Your task to perform on an android device: Search for razer nari on walmart.com, select the first entry, and add it to the cart. Image 0: 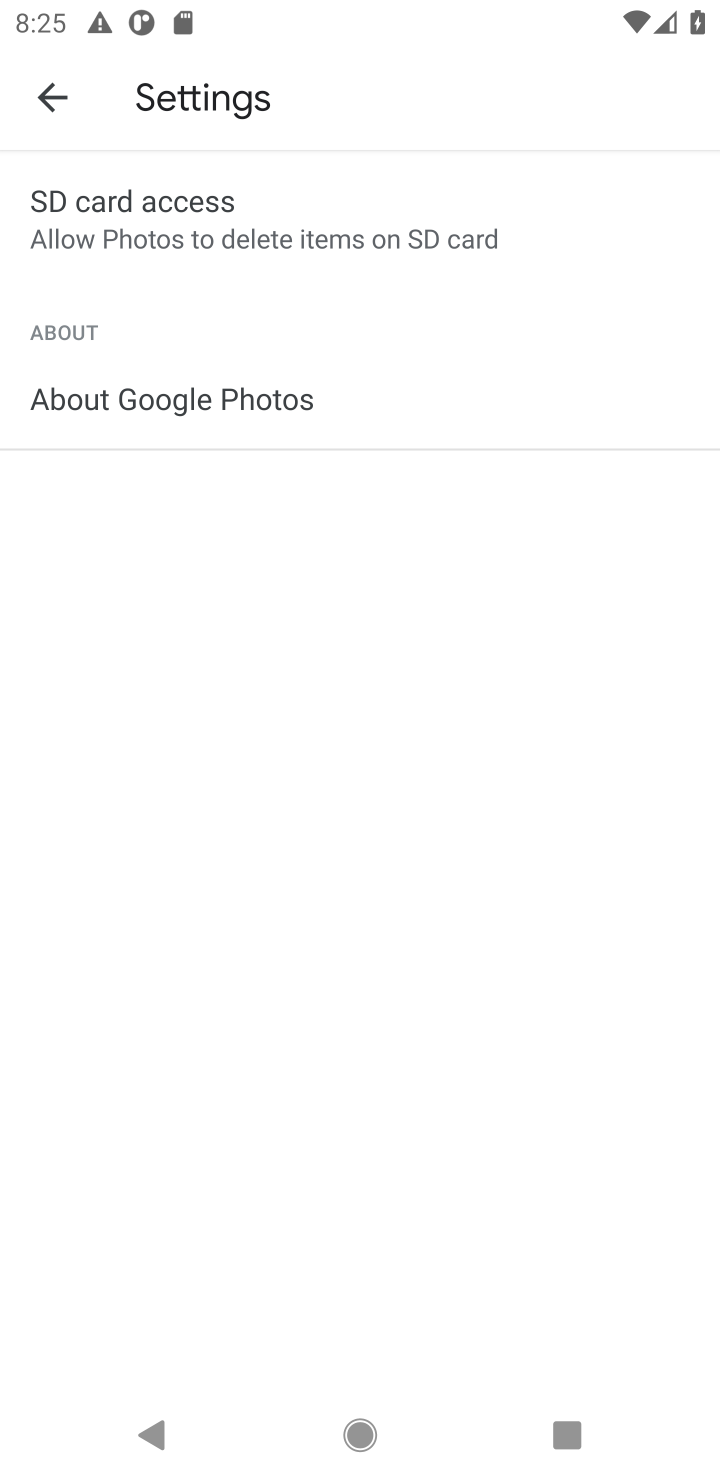
Step 0: press home button
Your task to perform on an android device: Search for razer nari on walmart.com, select the first entry, and add it to the cart. Image 1: 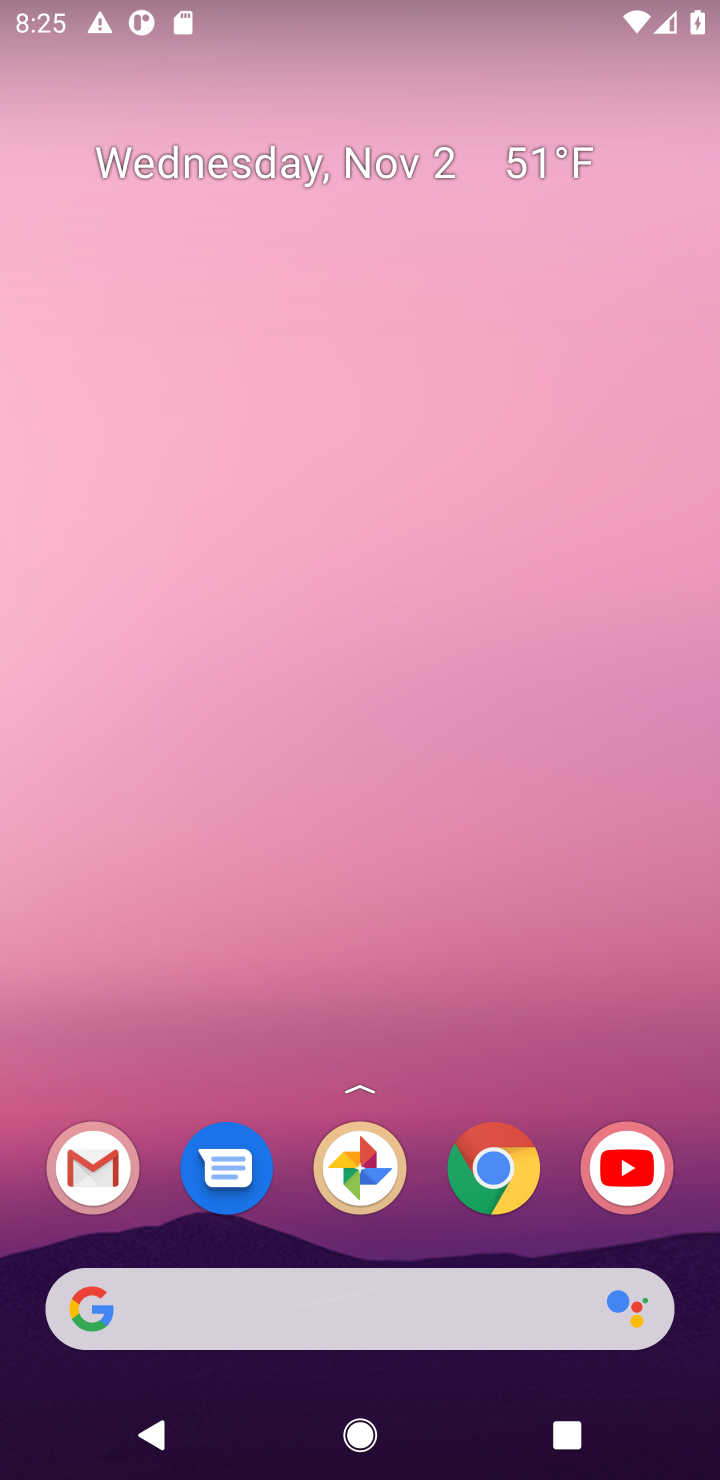
Step 1: click (279, 1314)
Your task to perform on an android device: Search for razer nari on walmart.com, select the first entry, and add it to the cart. Image 2: 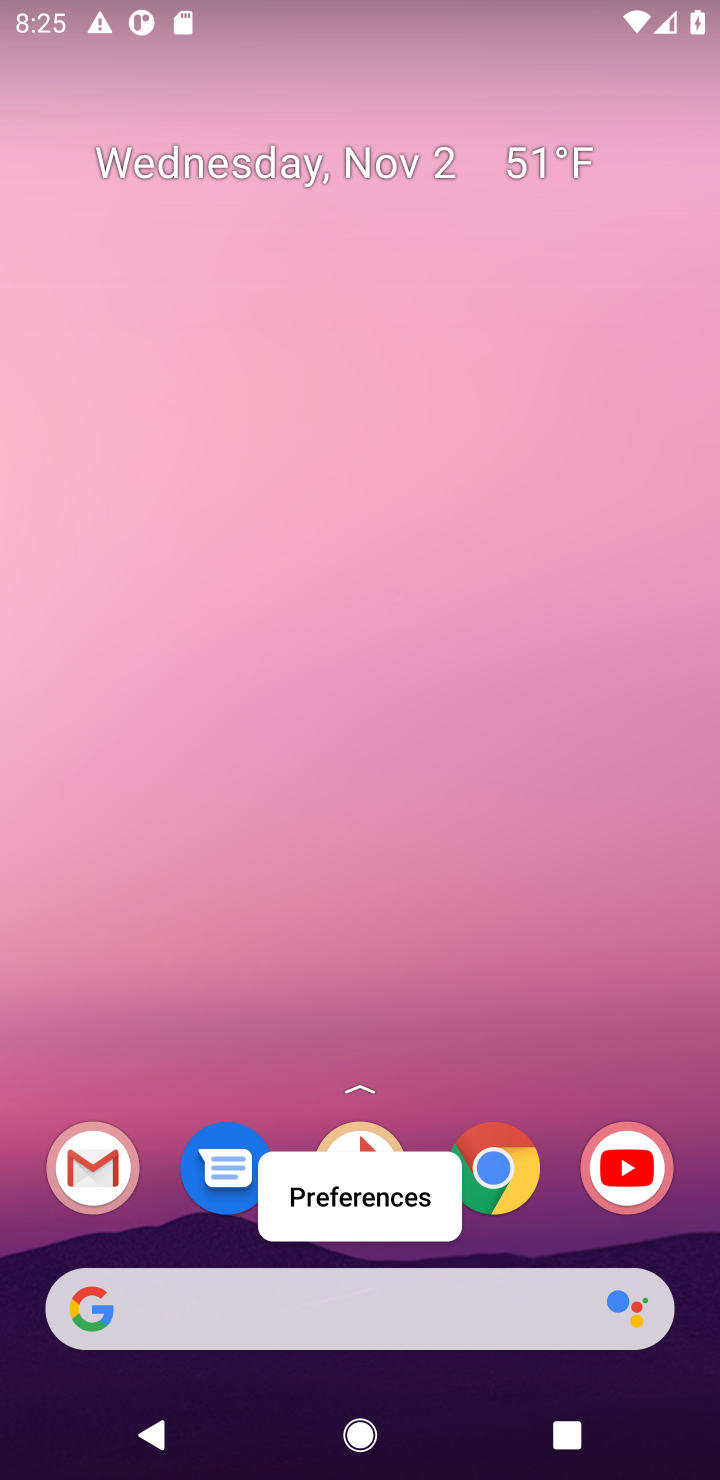
Step 2: click (342, 1304)
Your task to perform on an android device: Search for razer nari on walmart.com, select the first entry, and add it to the cart. Image 3: 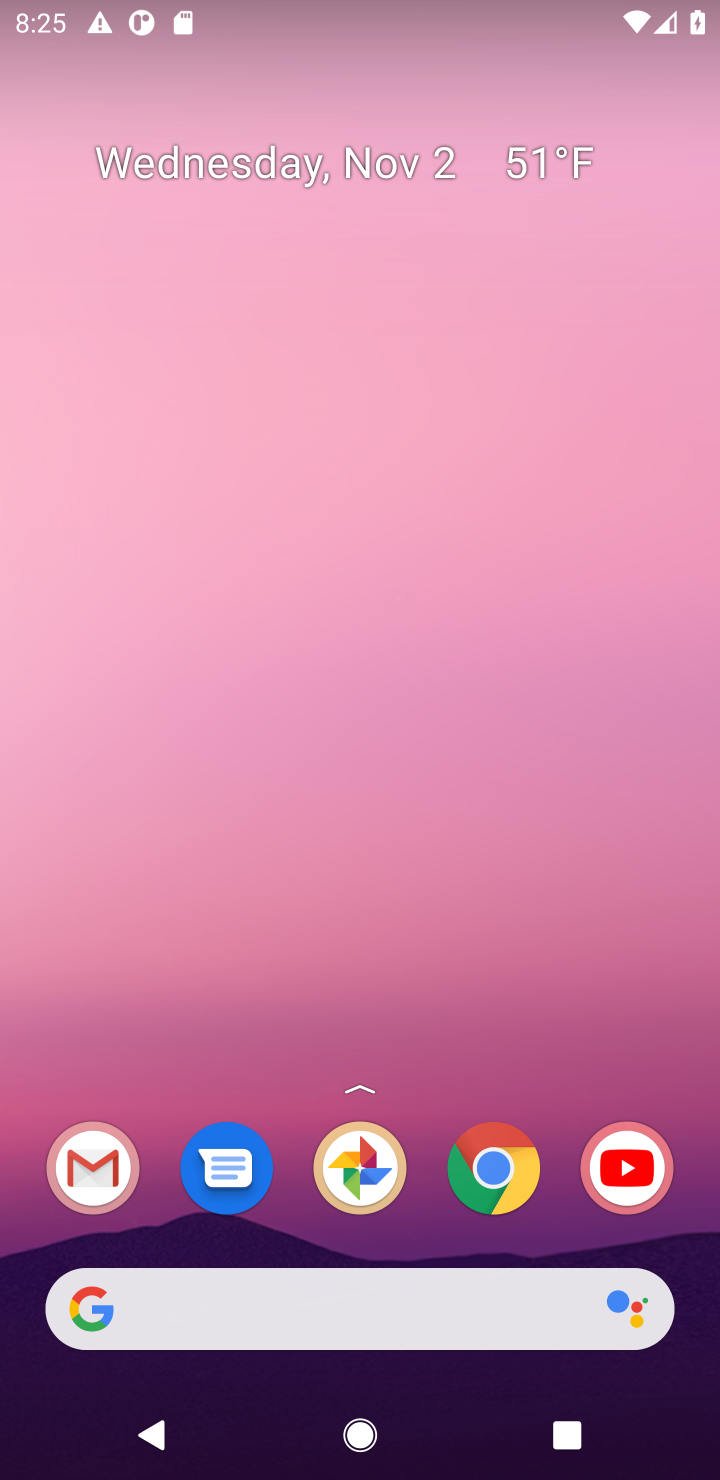
Step 3: click (513, 1184)
Your task to perform on an android device: Search for razer nari on walmart.com, select the first entry, and add it to the cart. Image 4: 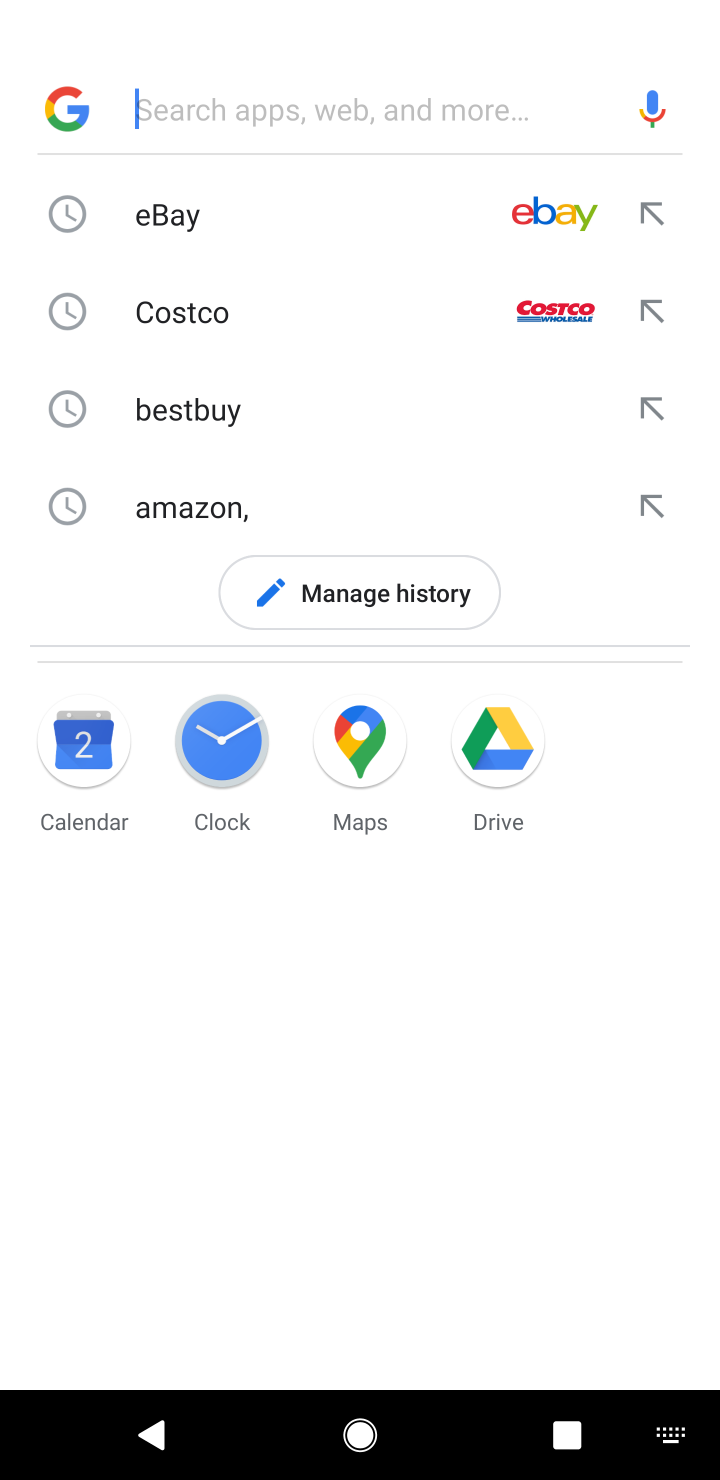
Step 4: type " walmart.com"
Your task to perform on an android device: Search for razer nari on walmart.com, select the first entry, and add it to the cart. Image 5: 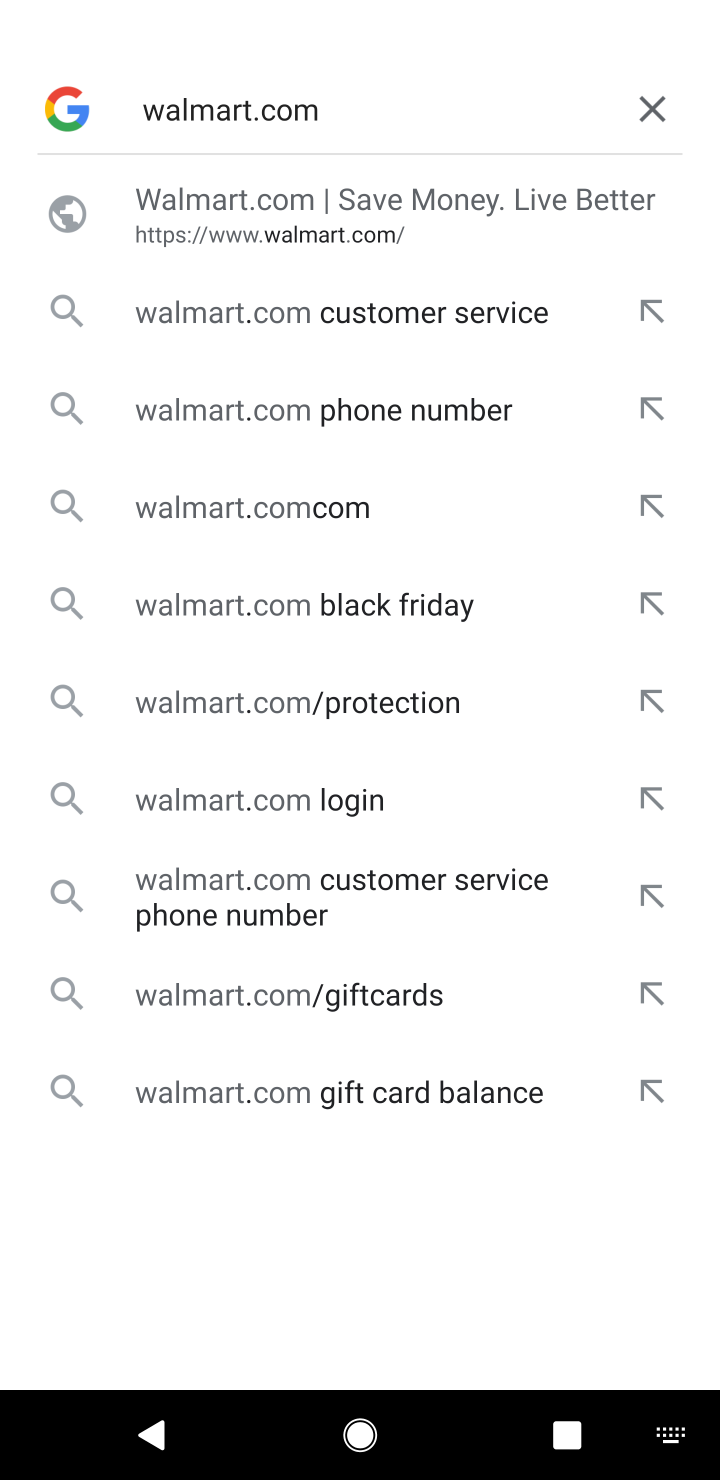
Step 5: type ""
Your task to perform on an android device: Search for razer nari on walmart.com, select the first entry, and add it to the cart. Image 6: 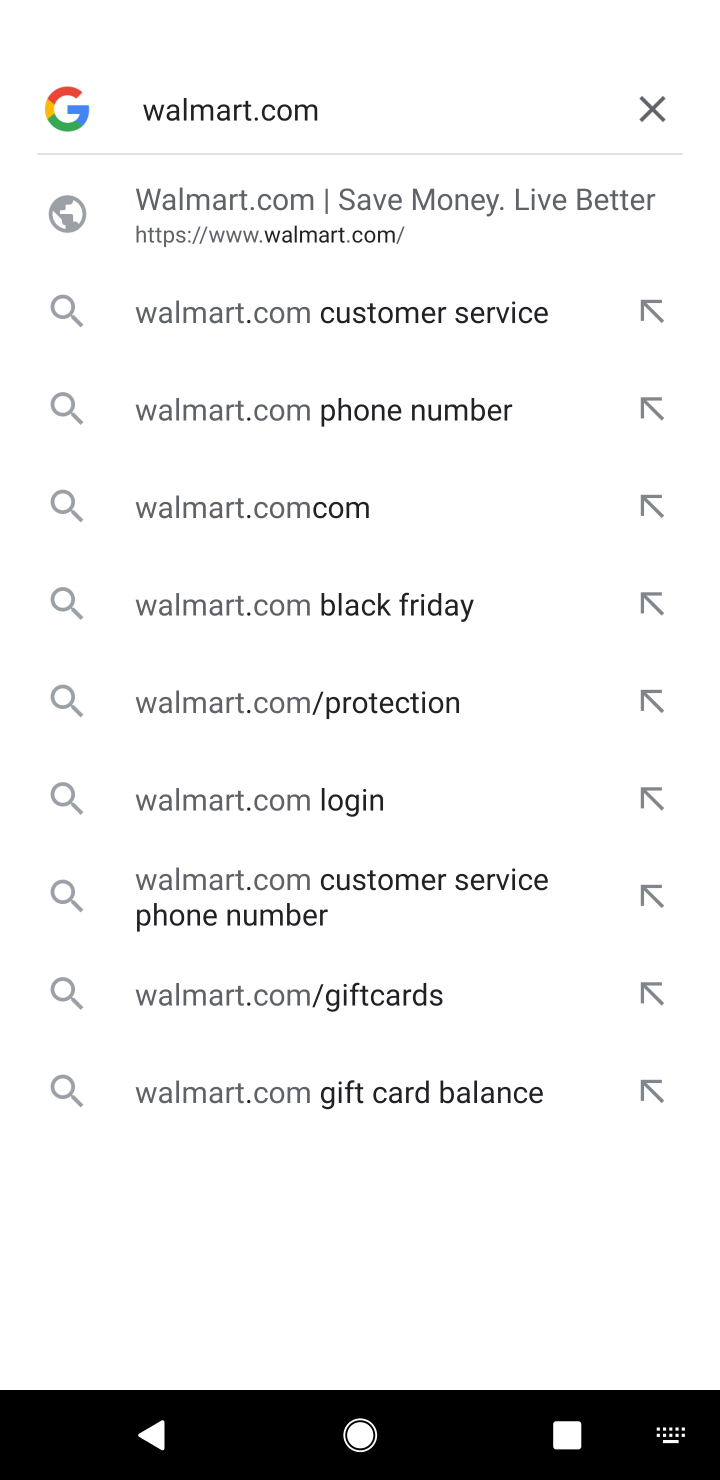
Step 6: press enter
Your task to perform on an android device: Search for razer nari on walmart.com, select the first entry, and add it to the cart. Image 7: 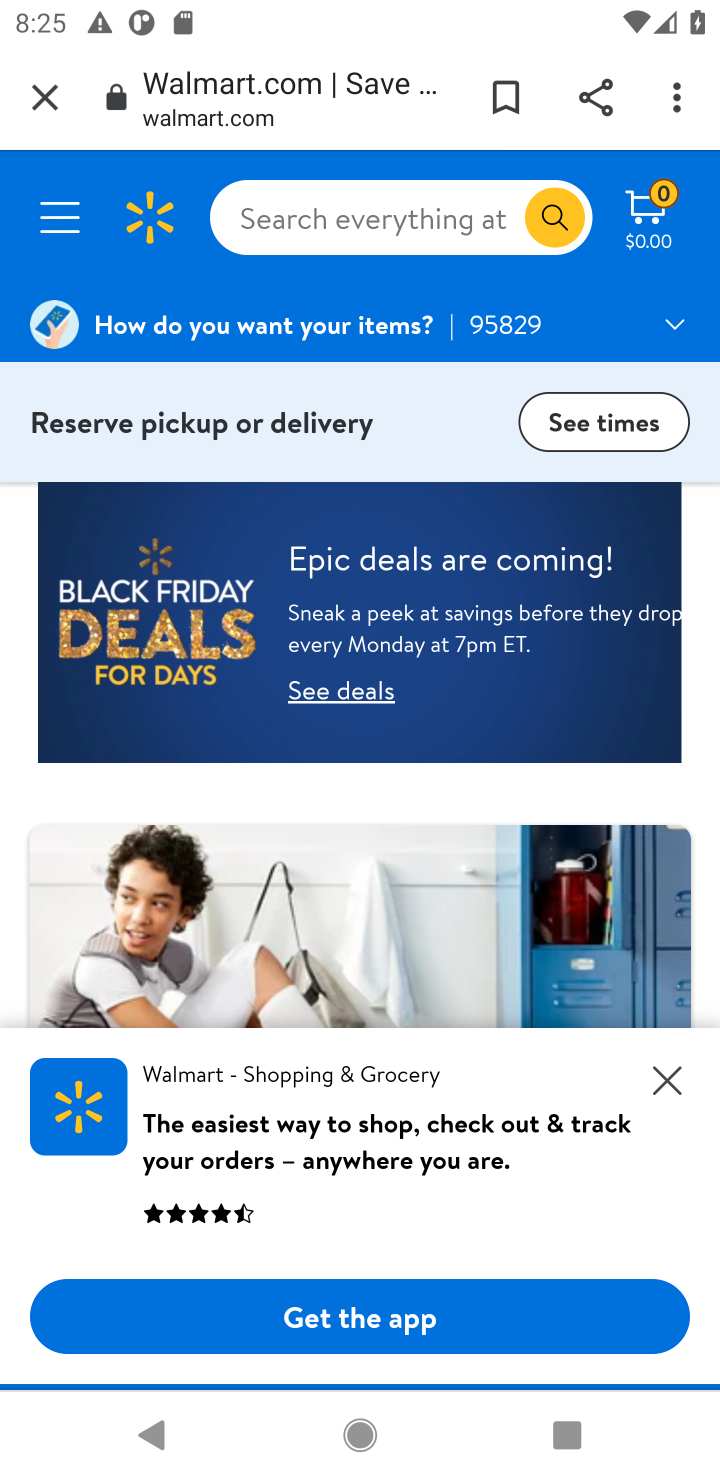
Step 7: click (672, 1078)
Your task to perform on an android device: Search for razer nari on walmart.com, select the first entry, and add it to the cart. Image 8: 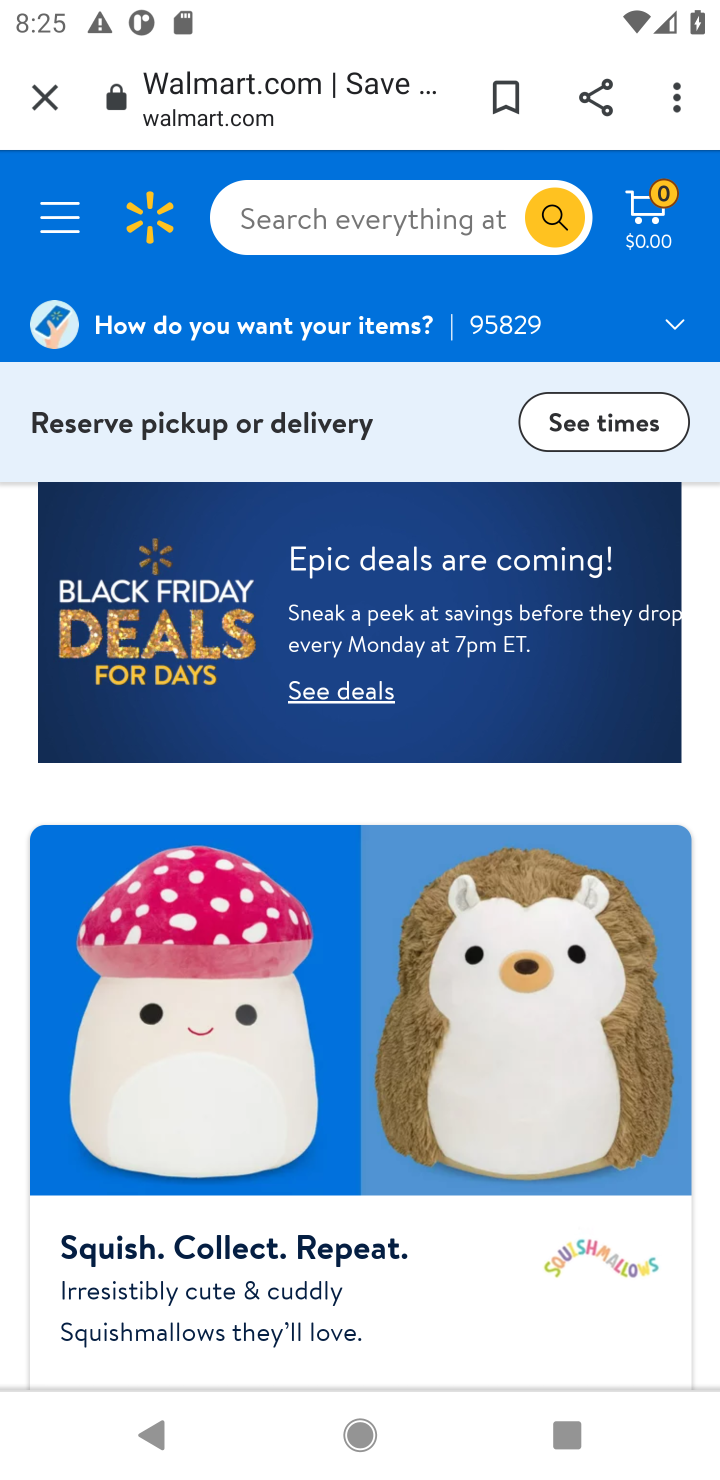
Step 8: click (329, 207)
Your task to perform on an android device: Search for razer nari on walmart.com, select the first entry, and add it to the cart. Image 9: 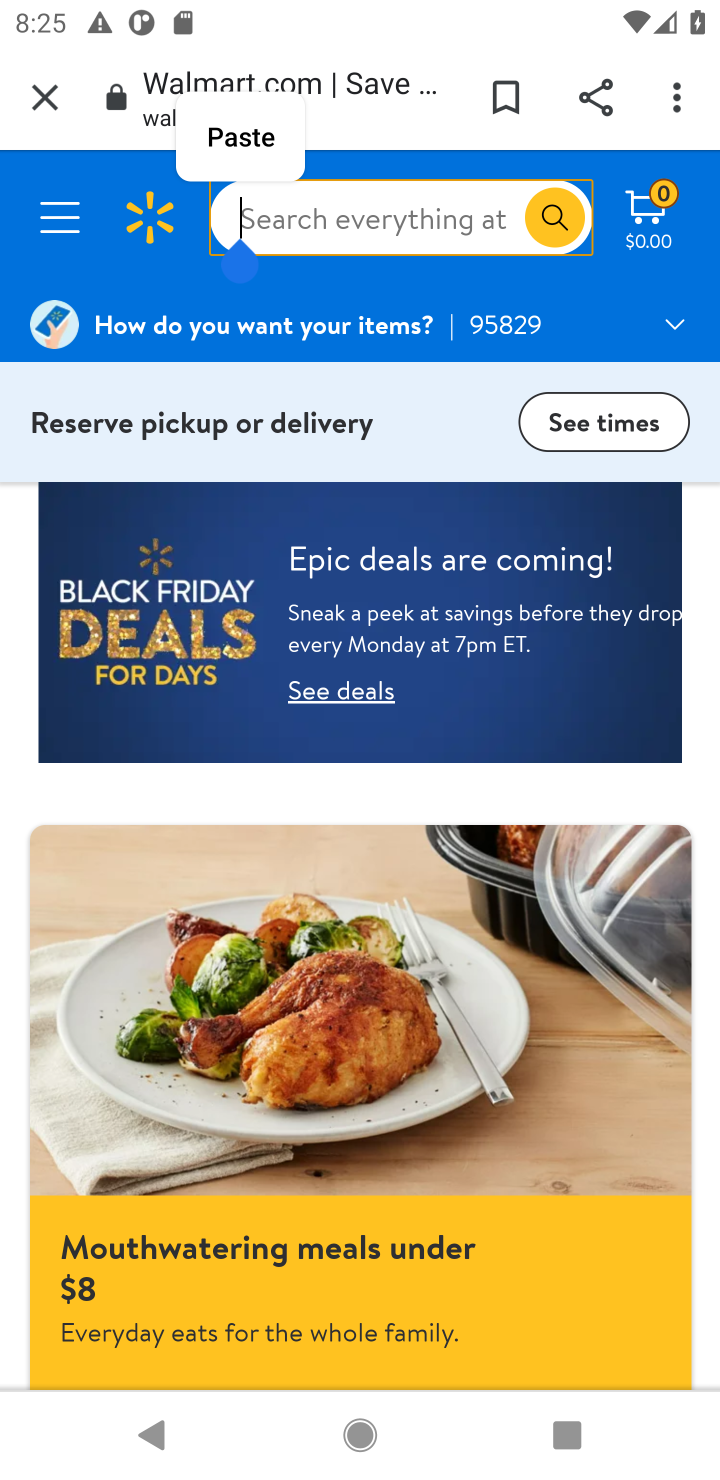
Step 9: type "razer nari "
Your task to perform on an android device: Search for razer nari on walmart.com, select the first entry, and add it to the cart. Image 10: 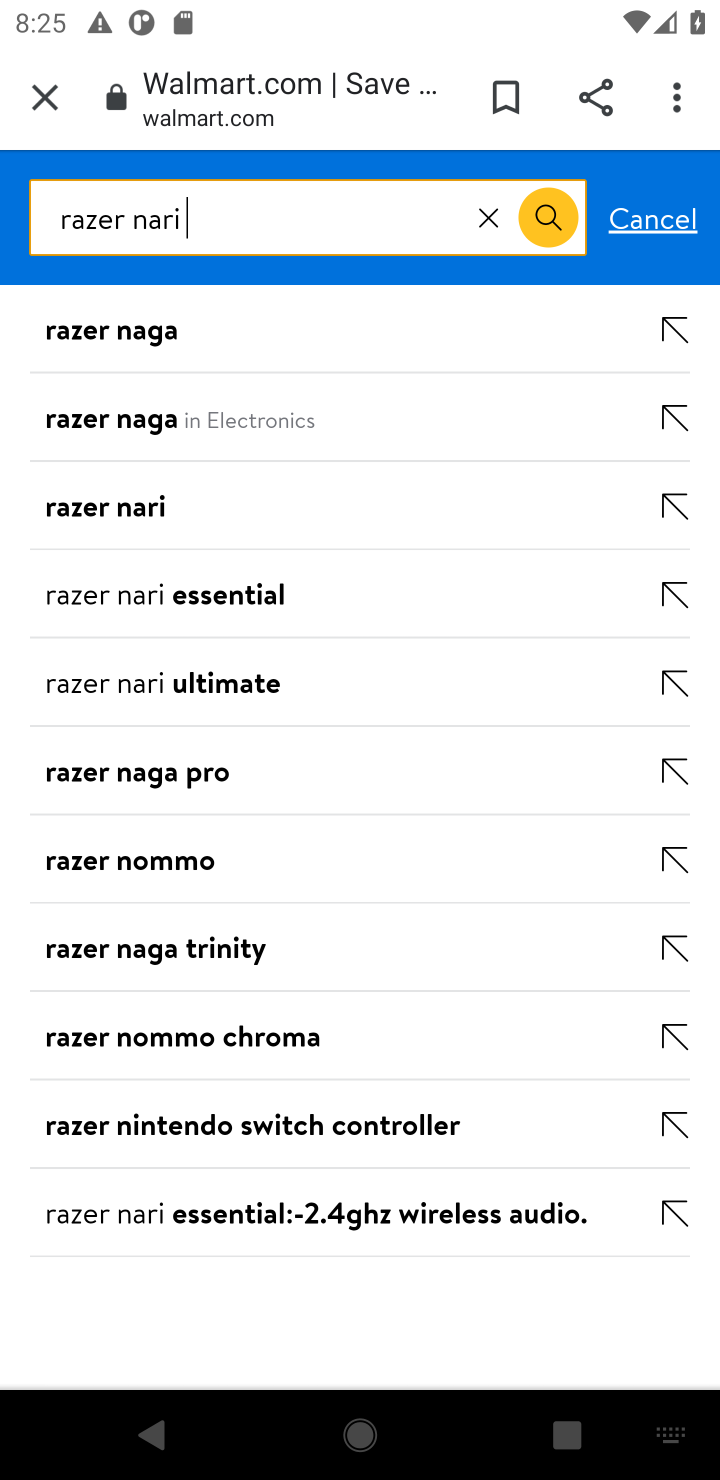
Step 10: type ""
Your task to perform on an android device: Search for razer nari on walmart.com, select the first entry, and add it to the cart. Image 11: 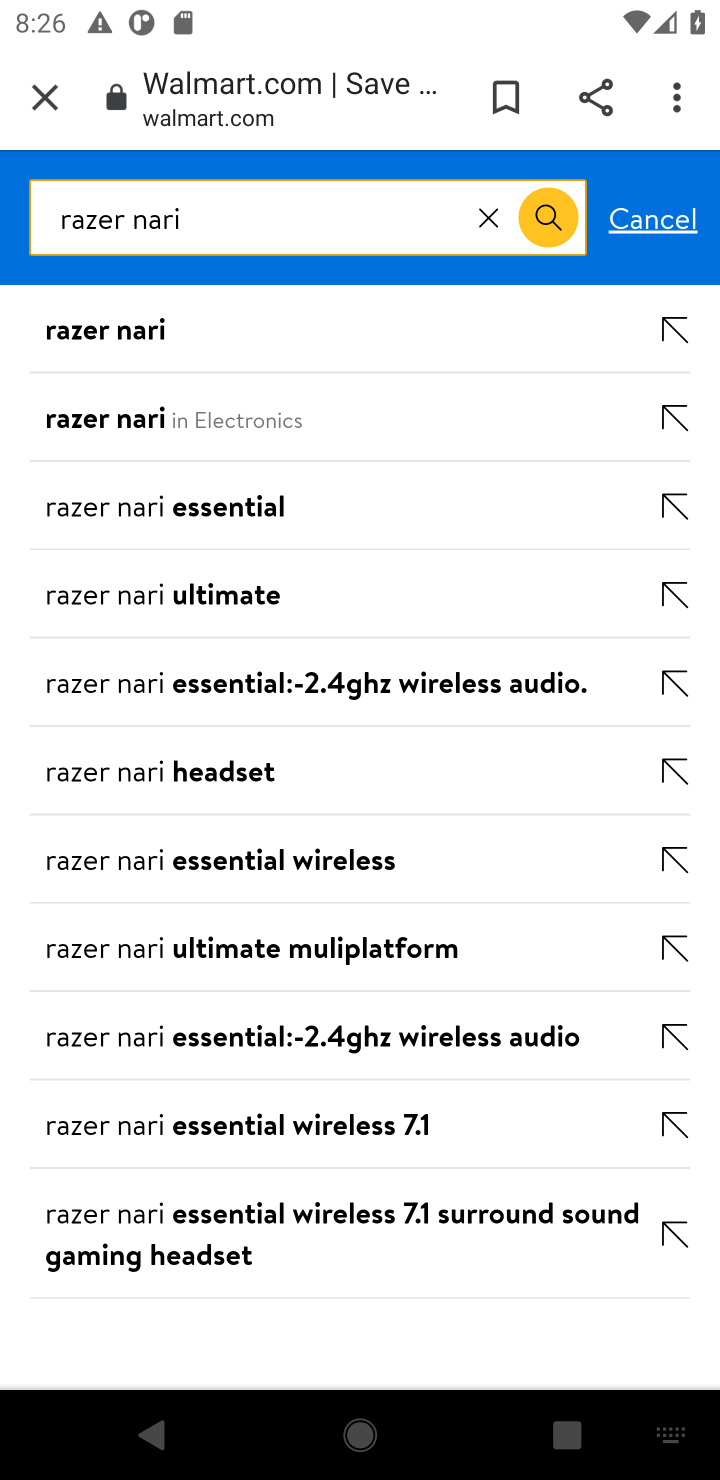
Step 11: press enter
Your task to perform on an android device: Search for razer nari on walmart.com, select the first entry, and add it to the cart. Image 12: 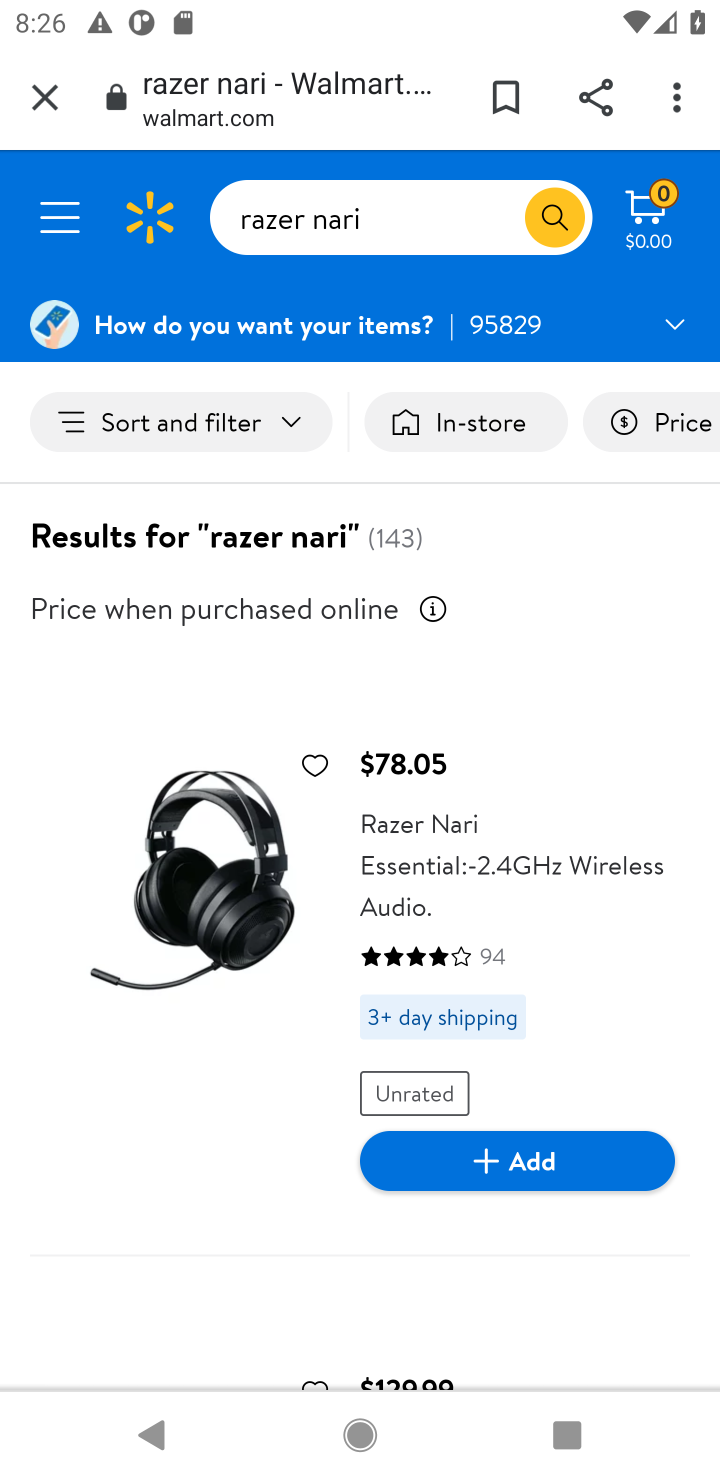
Step 12: click (570, 1175)
Your task to perform on an android device: Search for razer nari on walmart.com, select the first entry, and add it to the cart. Image 13: 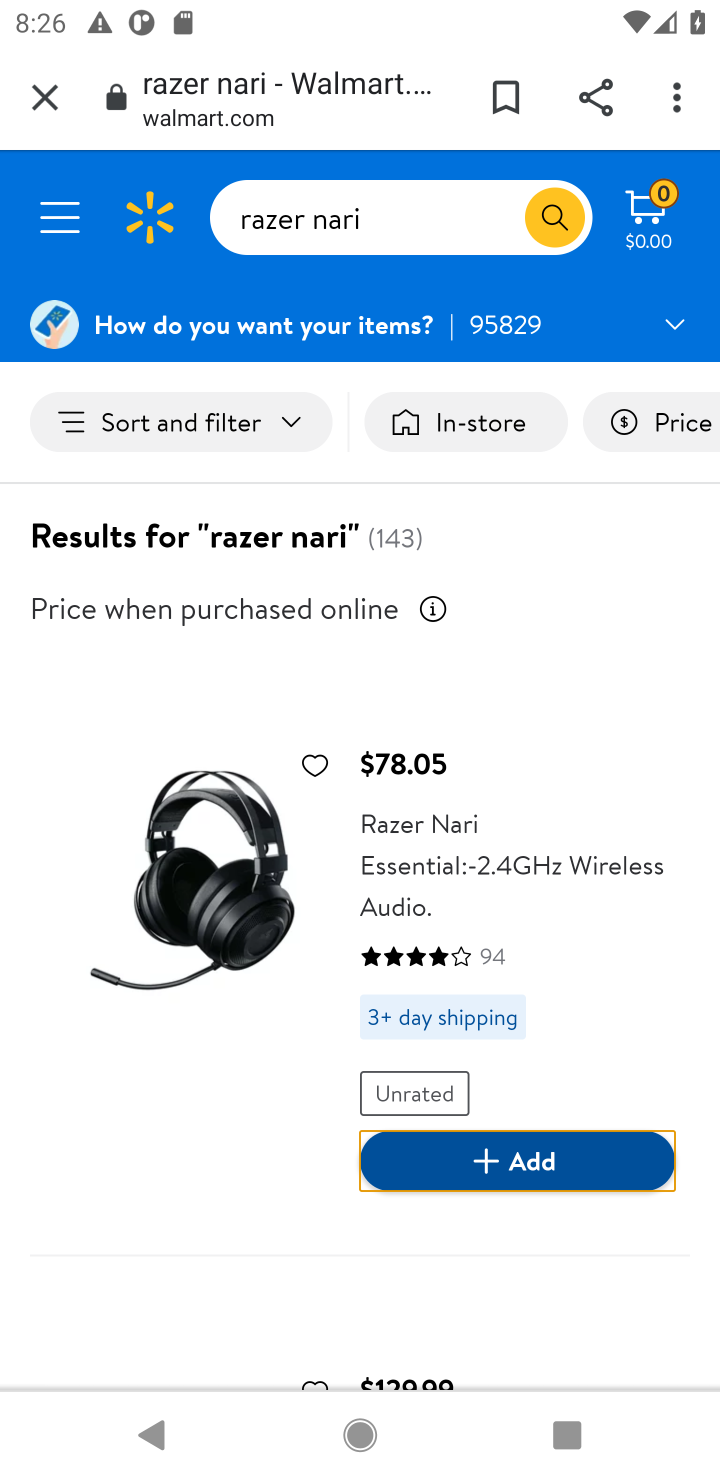
Step 13: click (554, 1171)
Your task to perform on an android device: Search for razer nari on walmart.com, select the first entry, and add it to the cart. Image 14: 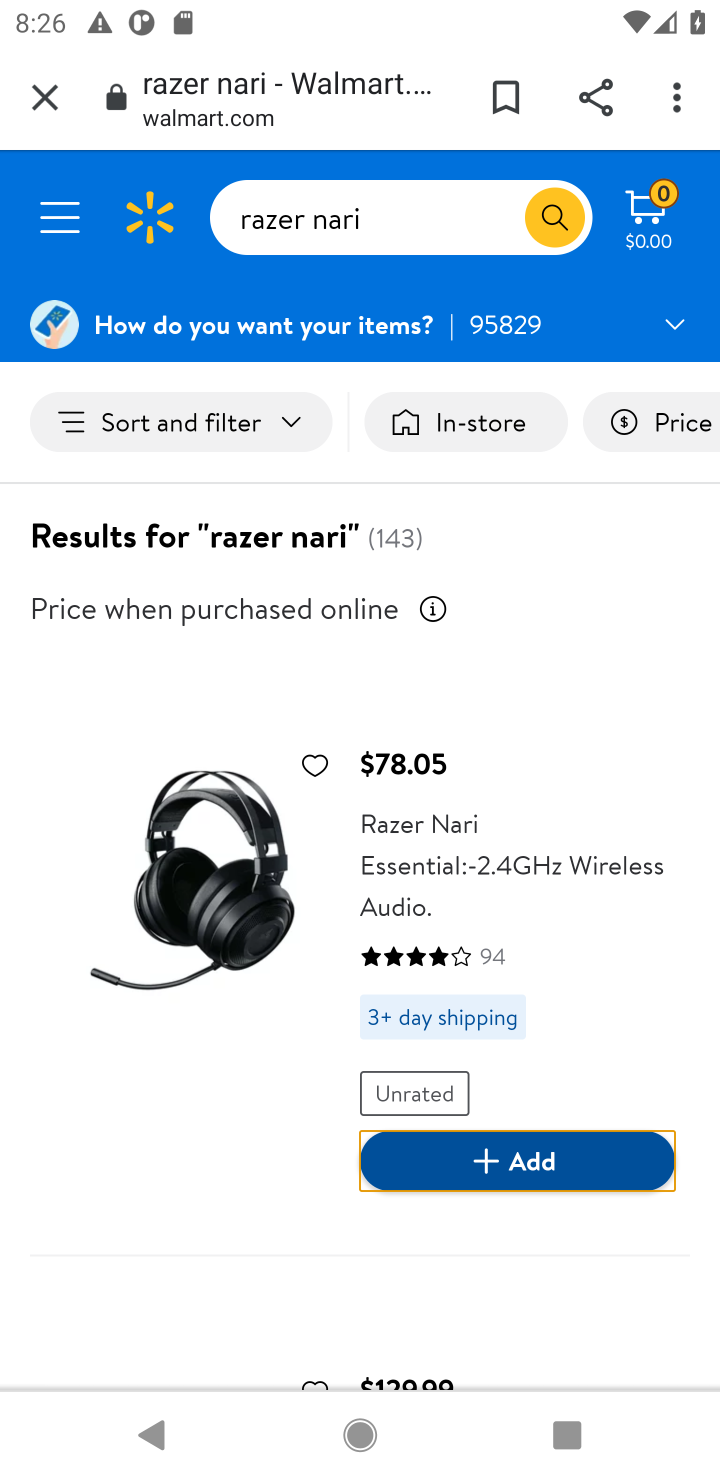
Step 14: click (554, 1171)
Your task to perform on an android device: Search for razer nari on walmart.com, select the first entry, and add it to the cart. Image 15: 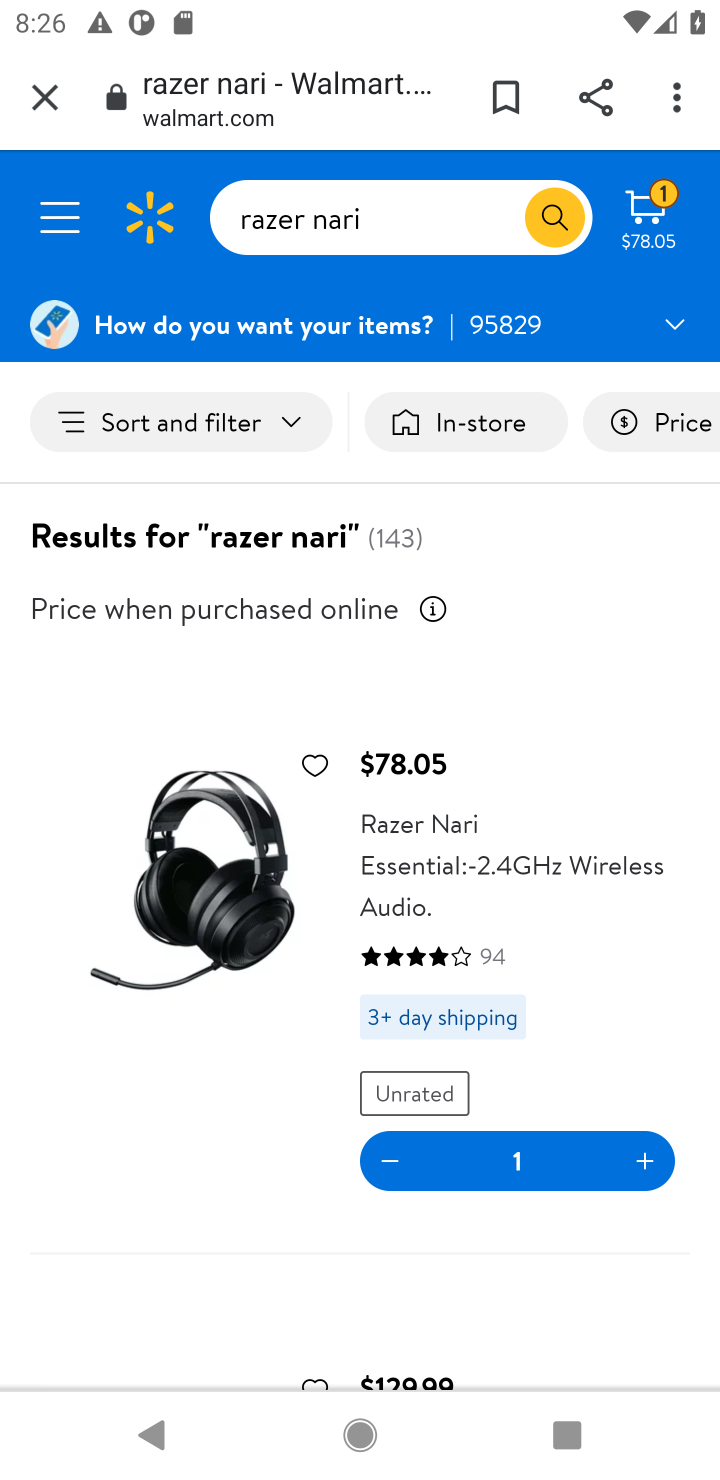
Step 15: click (522, 1157)
Your task to perform on an android device: Search for razer nari on walmart.com, select the first entry, and add it to the cart. Image 16: 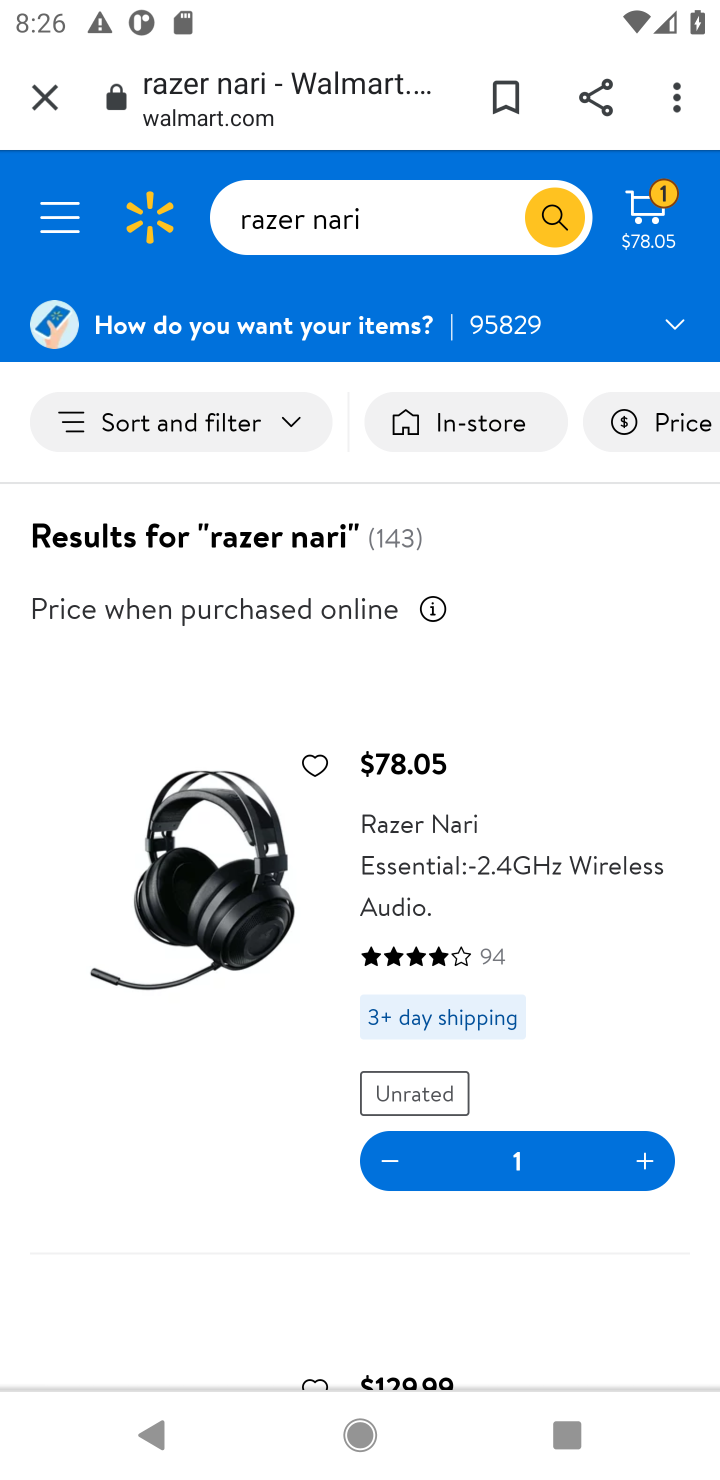
Step 16: task complete